Your task to perform on an android device: install app "Instagram" Image 0: 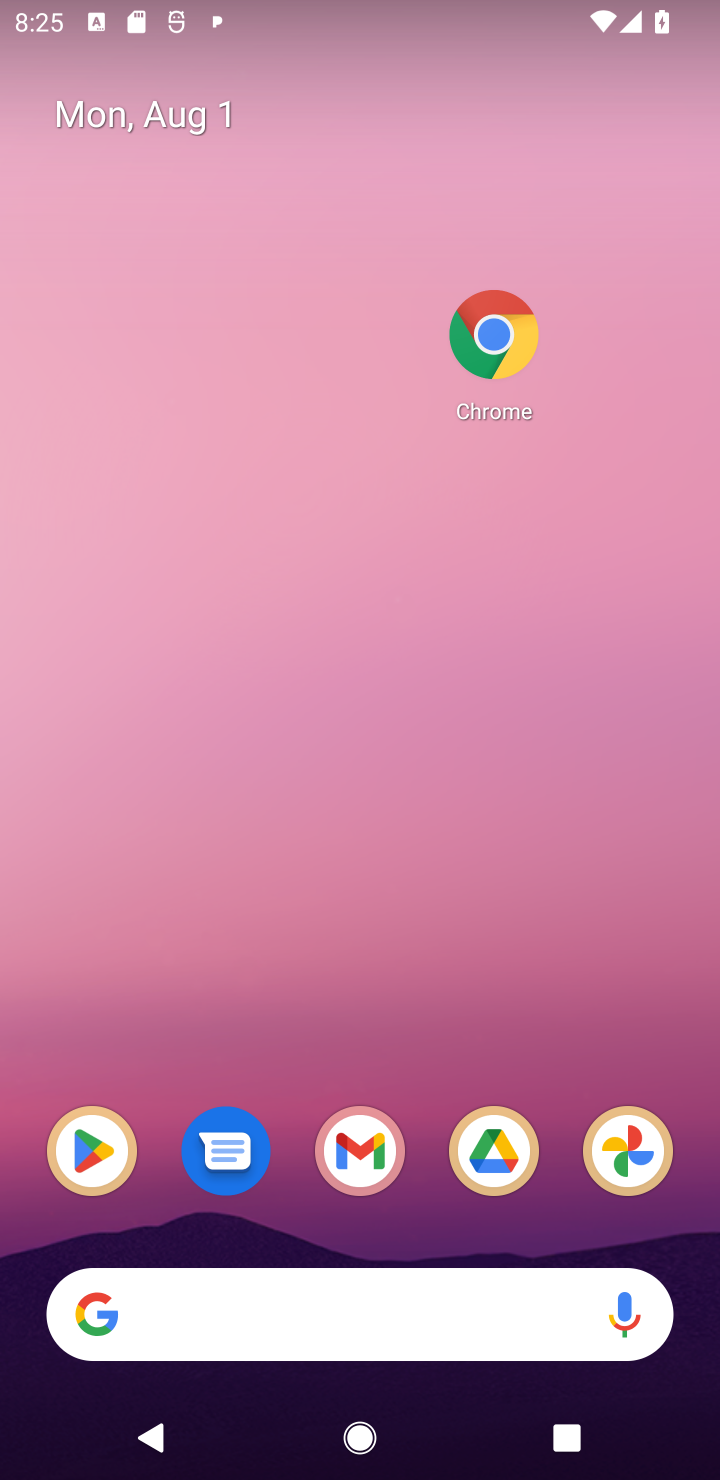
Step 0: click (103, 1152)
Your task to perform on an android device: install app "Instagram" Image 1: 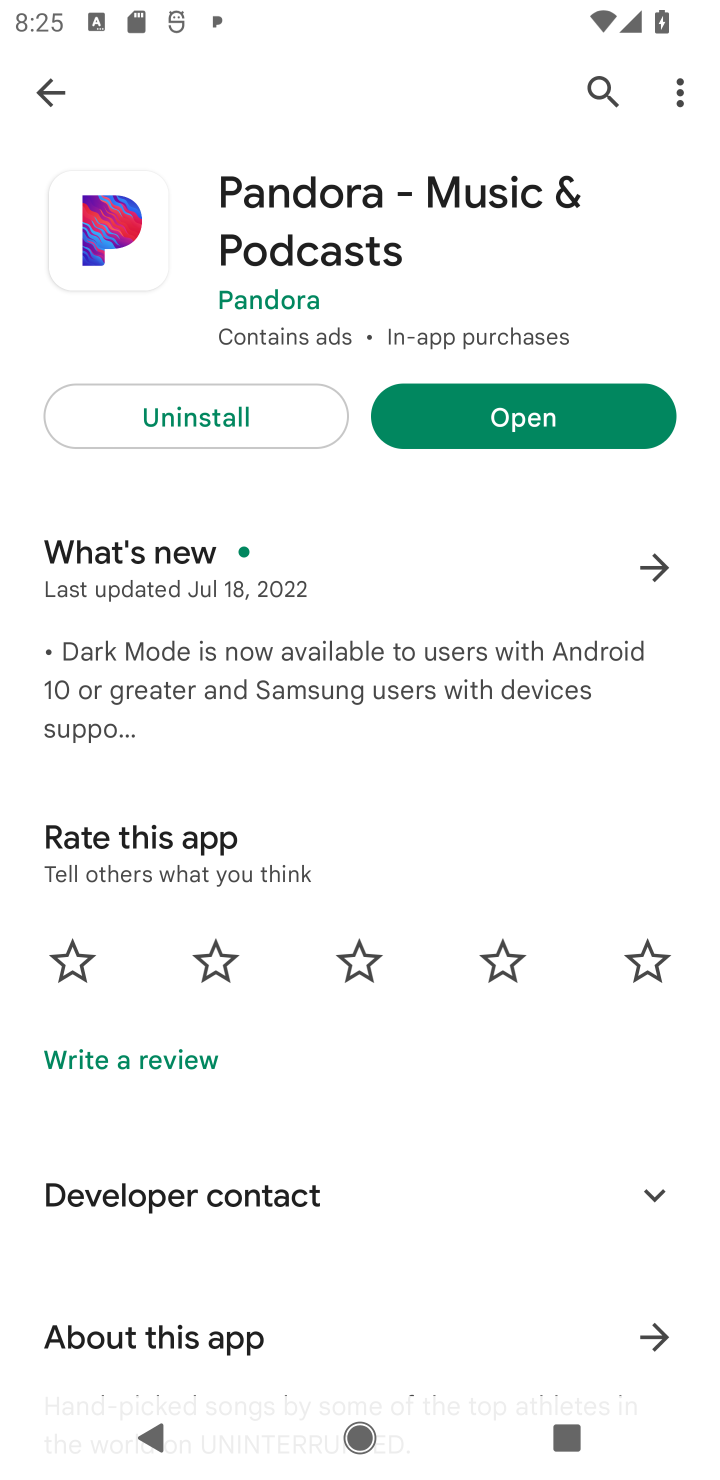
Step 1: click (597, 90)
Your task to perform on an android device: install app "Instagram" Image 2: 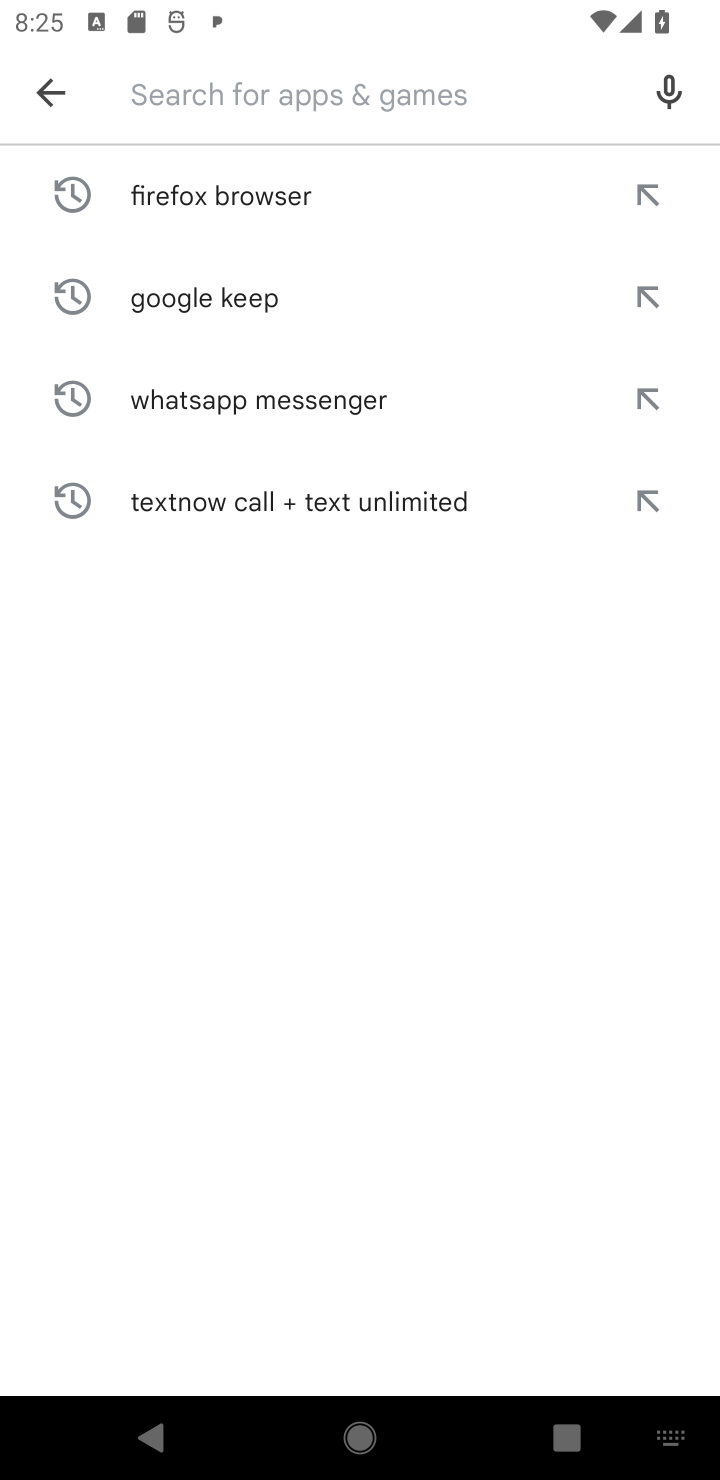
Step 2: type "Instagram"
Your task to perform on an android device: install app "Instagram" Image 3: 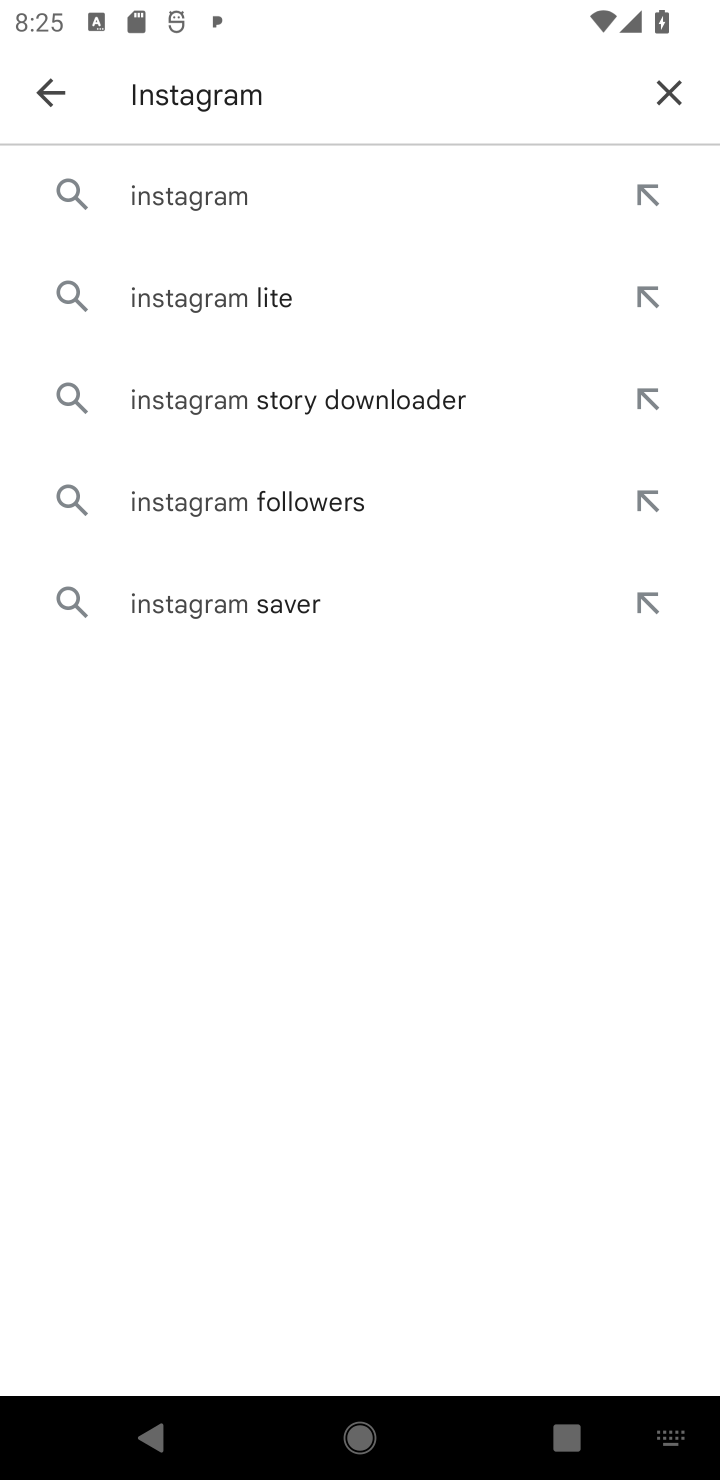
Step 3: click (231, 202)
Your task to perform on an android device: install app "Instagram" Image 4: 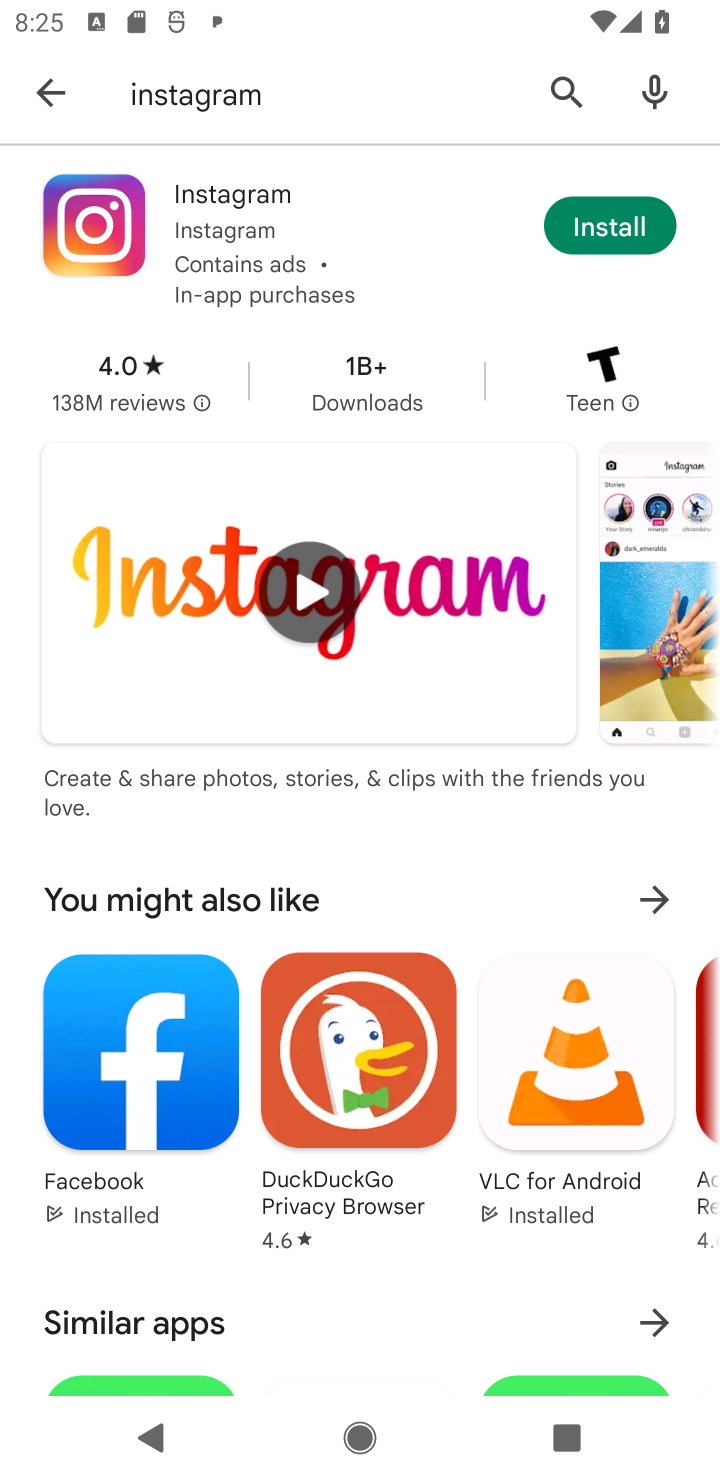
Step 4: click (607, 230)
Your task to perform on an android device: install app "Instagram" Image 5: 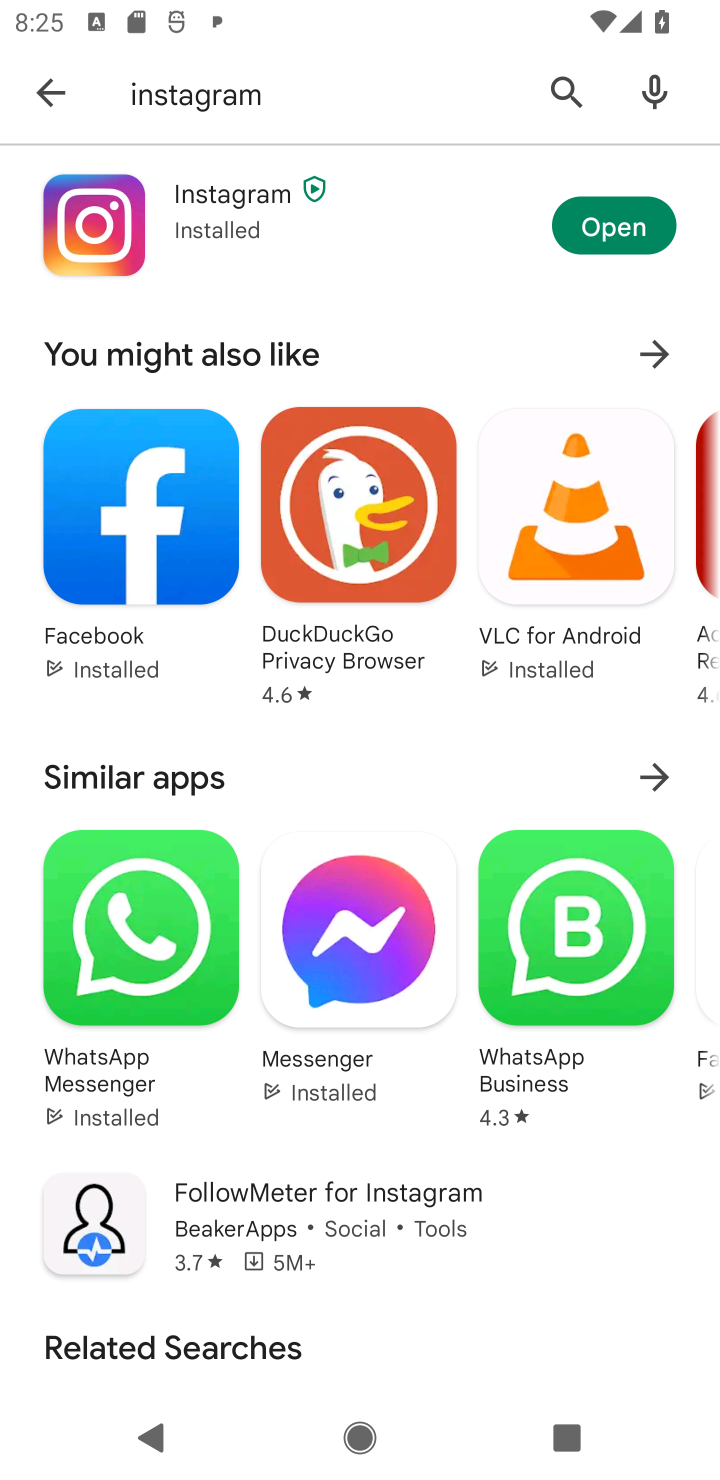
Step 5: task complete